Your task to perform on an android device: Open the web browser Image 0: 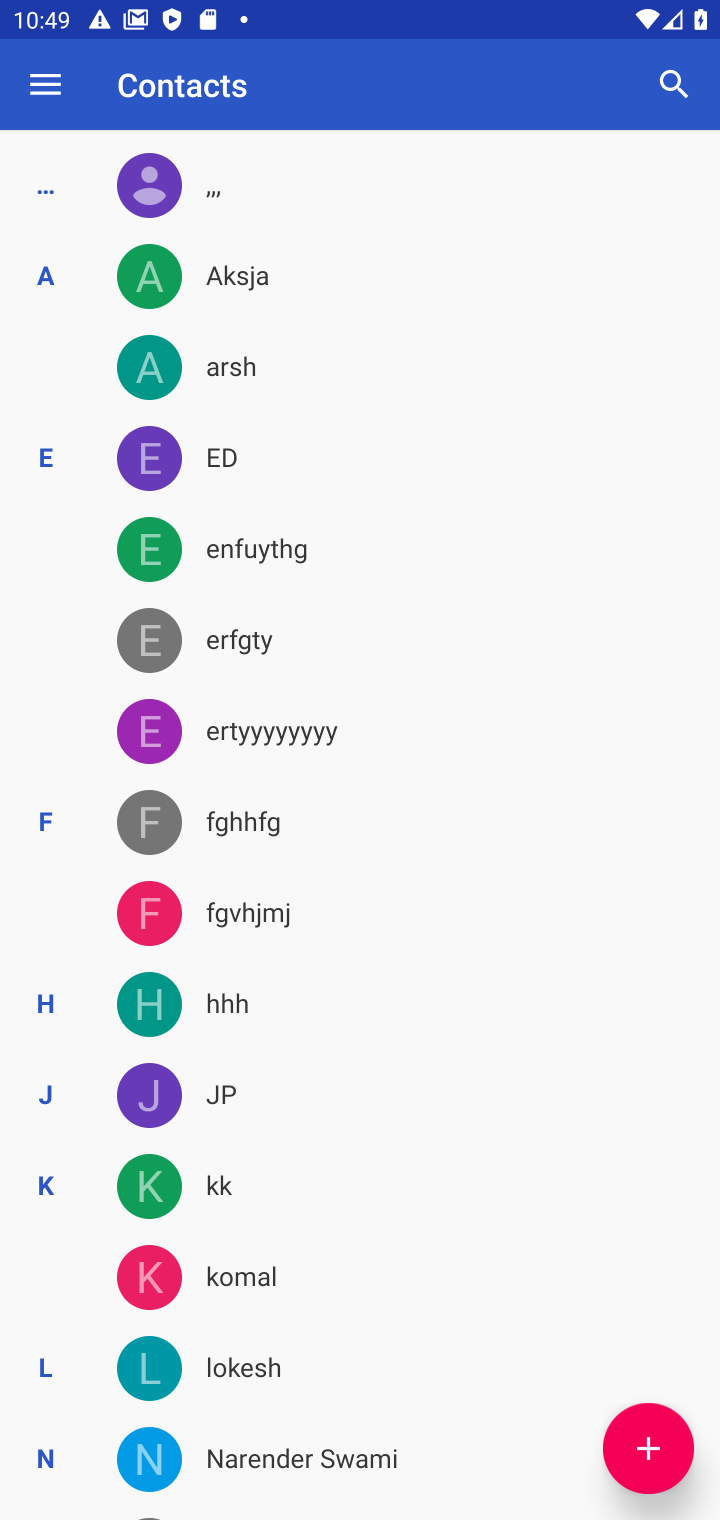
Step 0: press home button
Your task to perform on an android device: Open the web browser Image 1: 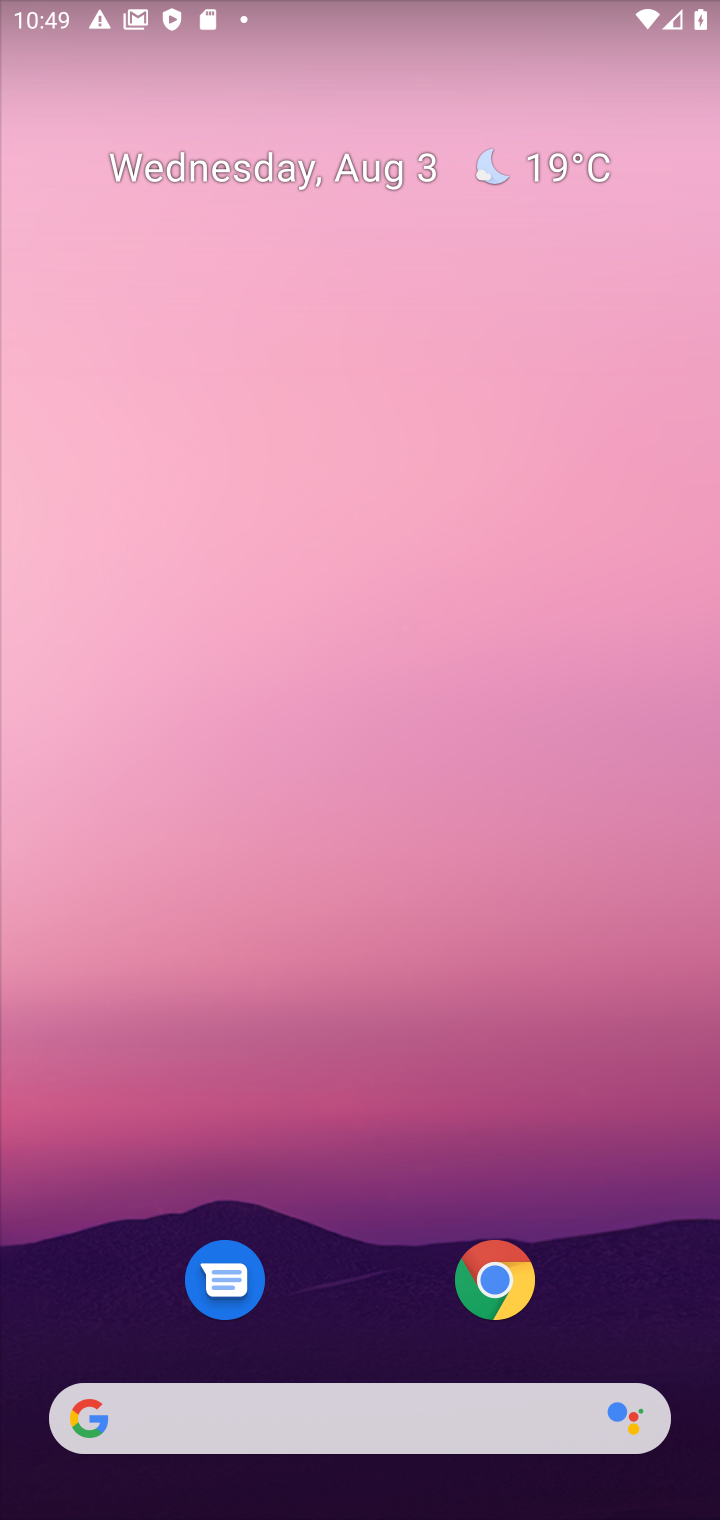
Step 1: click (425, 1046)
Your task to perform on an android device: Open the web browser Image 2: 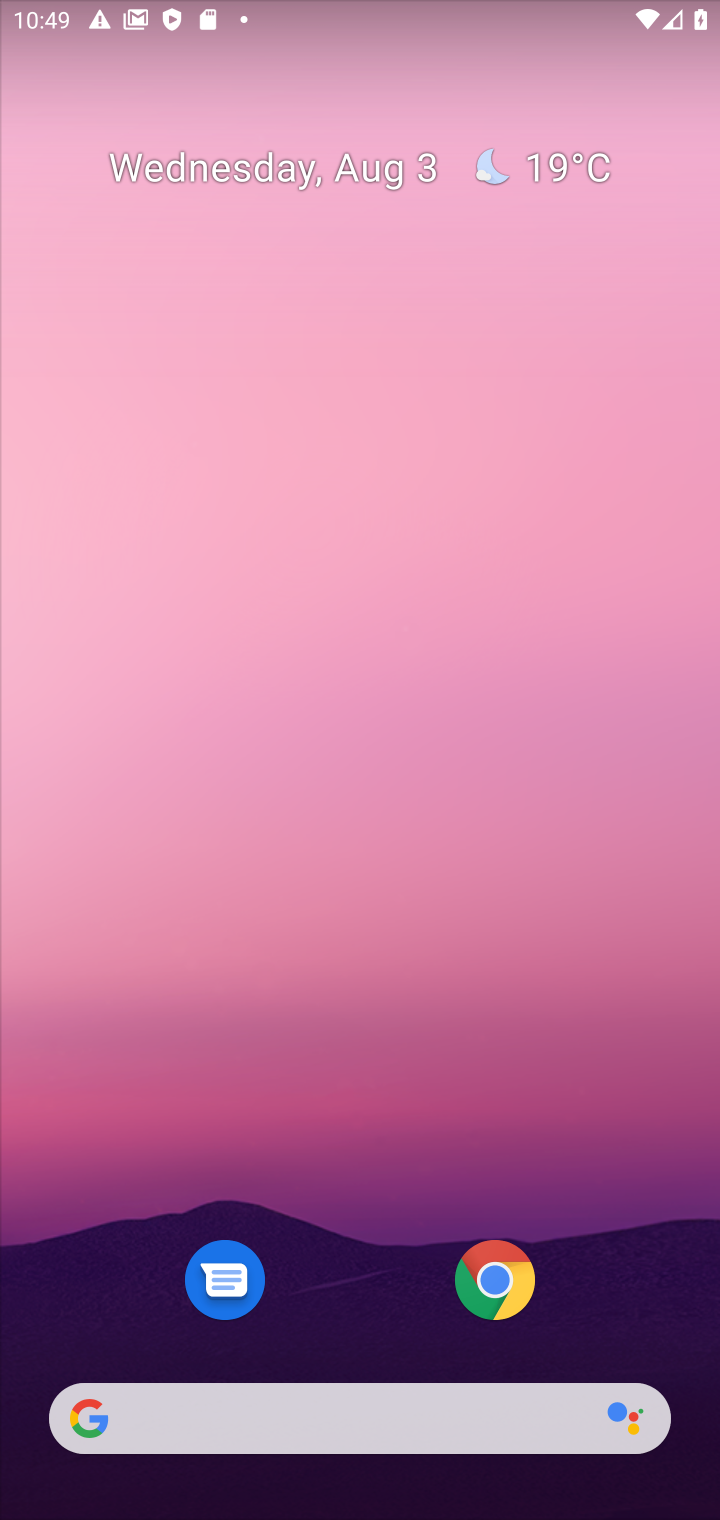
Step 2: click (496, 1280)
Your task to perform on an android device: Open the web browser Image 3: 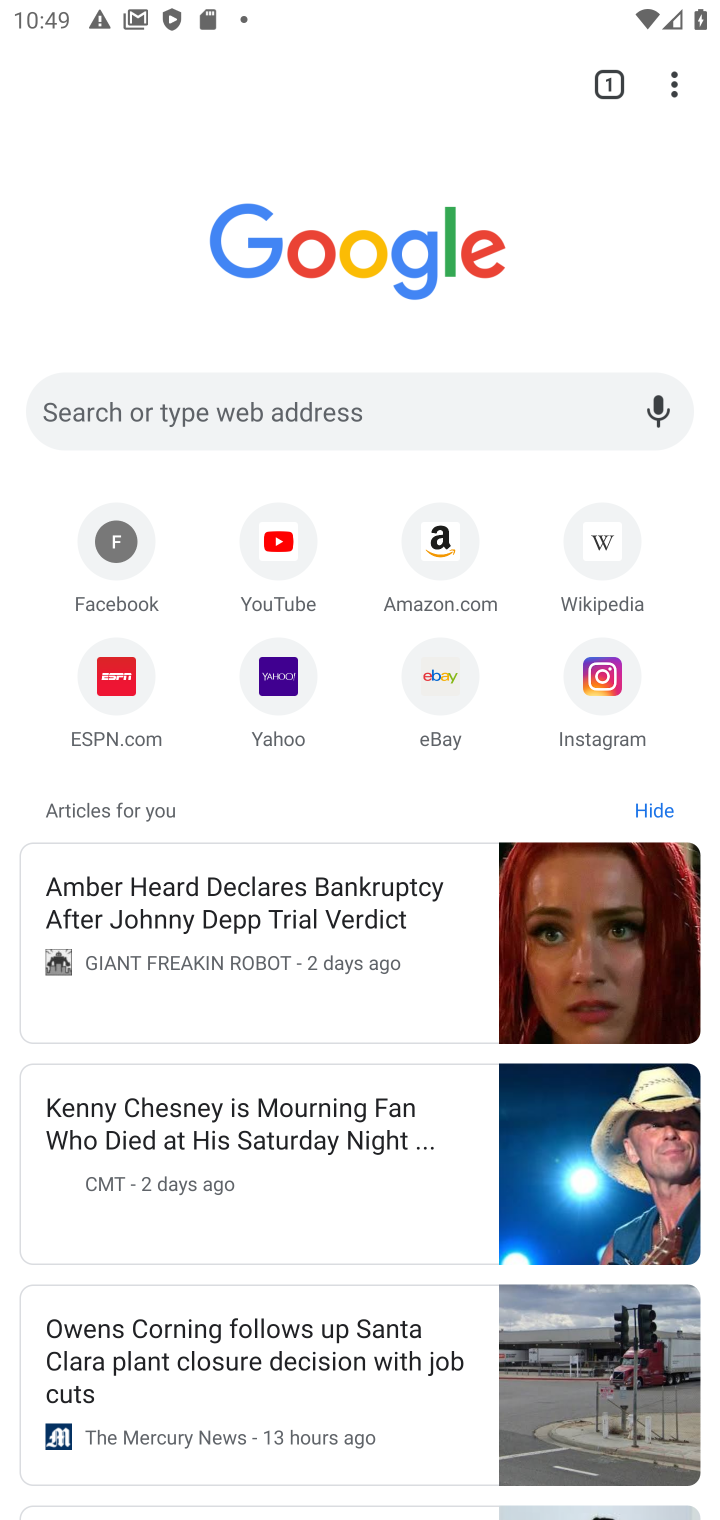
Step 3: task complete